Your task to perform on an android device: Clear the cart on bestbuy. Search for logitech g pro on bestbuy, select the first entry, and add it to the cart. Image 0: 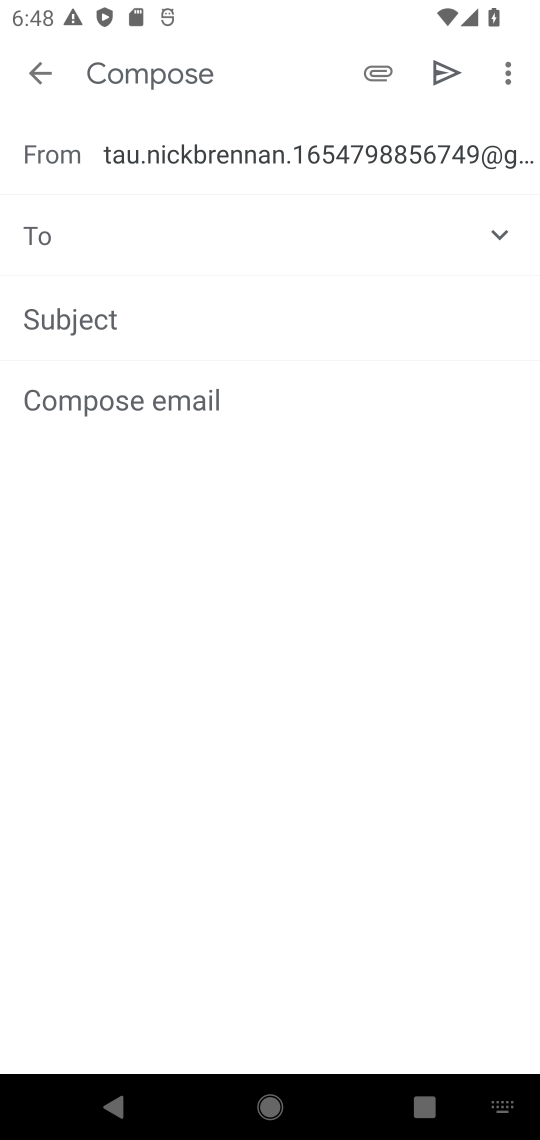
Step 0: press home button
Your task to perform on an android device: Clear the cart on bestbuy. Search for logitech g pro on bestbuy, select the first entry, and add it to the cart. Image 1: 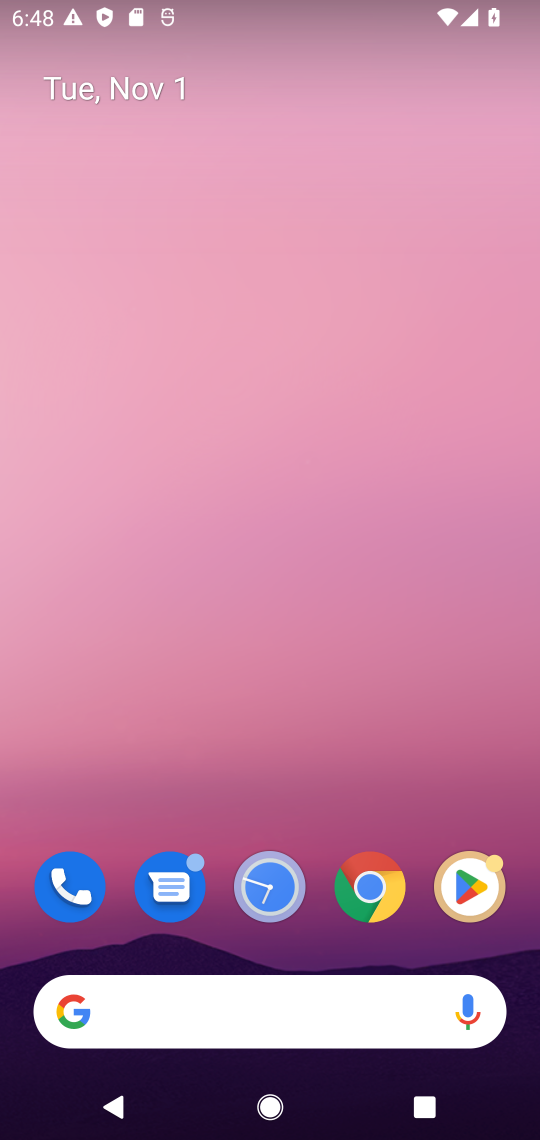
Step 1: drag from (248, 675) to (297, 205)
Your task to perform on an android device: Clear the cart on bestbuy. Search for logitech g pro on bestbuy, select the first entry, and add it to the cart. Image 2: 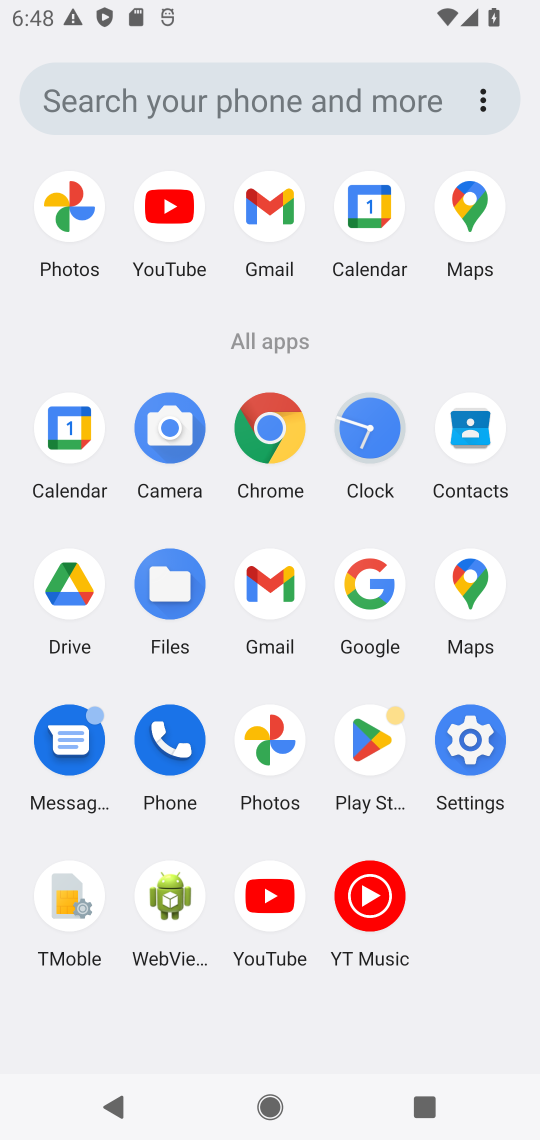
Step 2: click (379, 578)
Your task to perform on an android device: Clear the cart on bestbuy. Search for logitech g pro on bestbuy, select the first entry, and add it to the cart. Image 3: 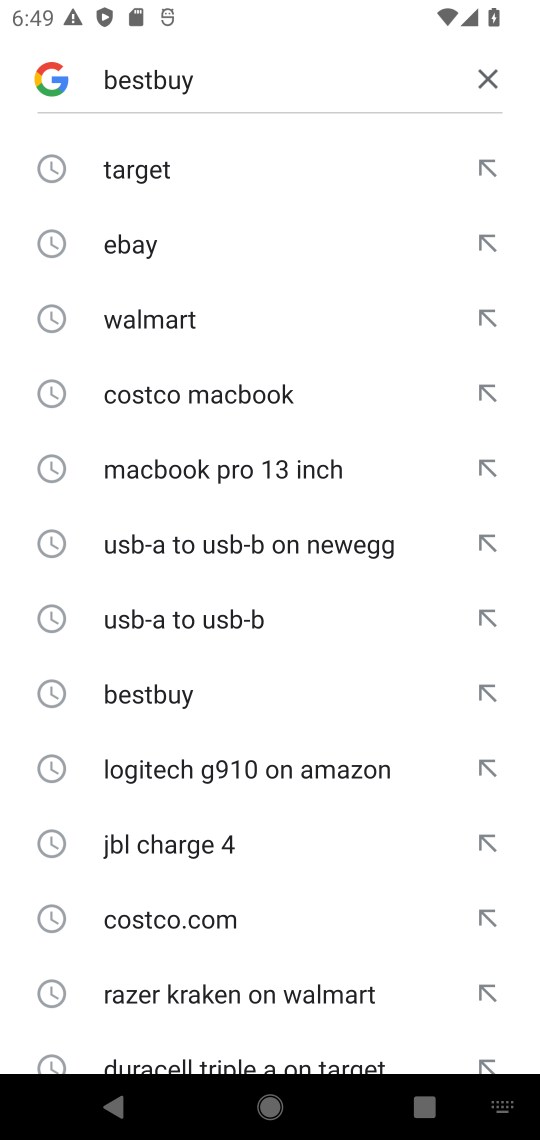
Step 3: click (475, 78)
Your task to perform on an android device: Clear the cart on bestbuy. Search for logitech g pro on bestbuy, select the first entry, and add it to the cart. Image 4: 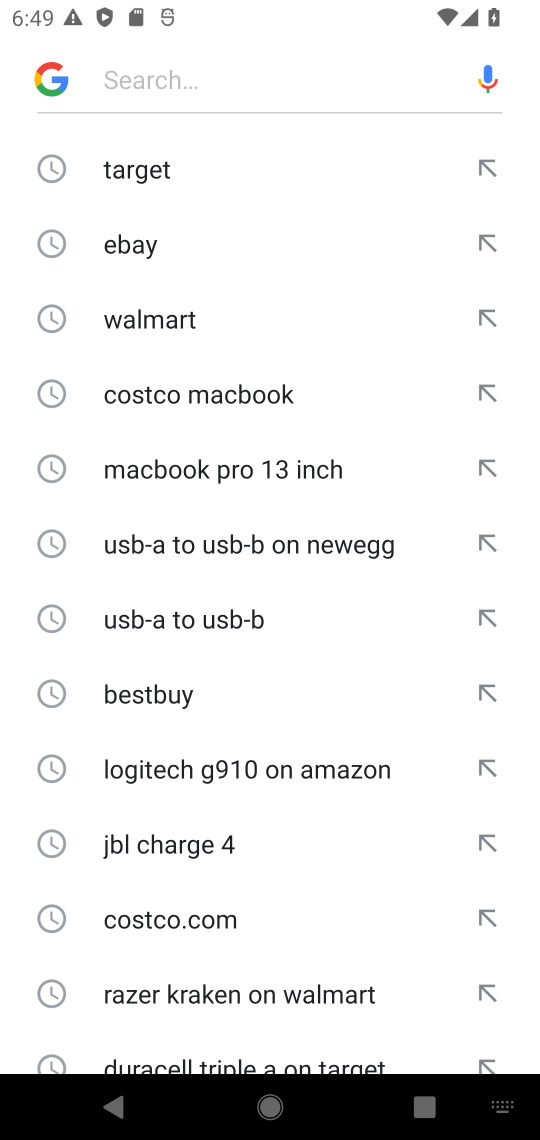
Step 4: click (212, 64)
Your task to perform on an android device: Clear the cart on bestbuy. Search for logitech g pro on bestbuy, select the first entry, and add it to the cart. Image 5: 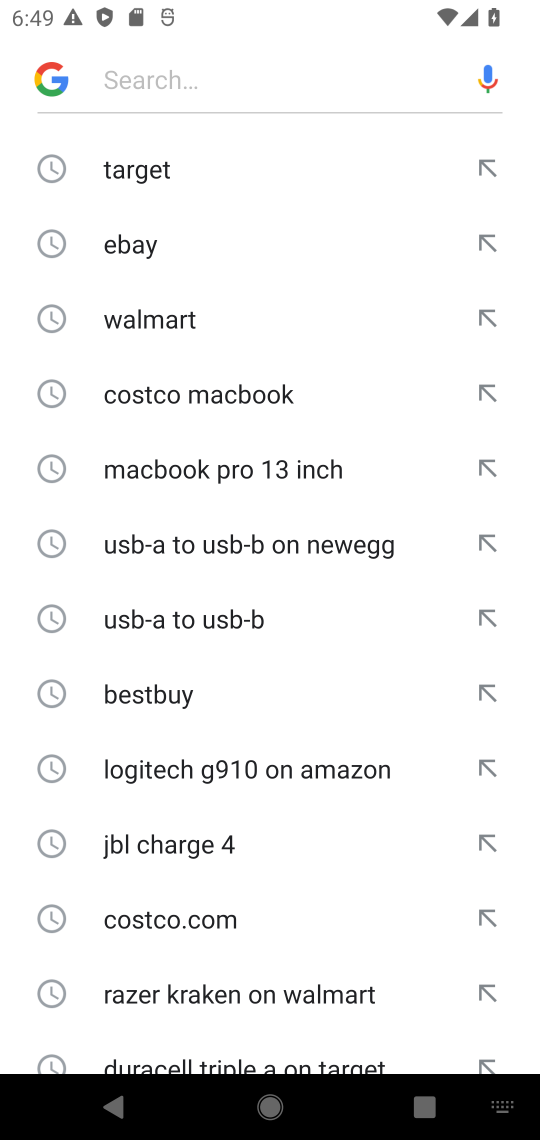
Step 5: type "bestbuy "
Your task to perform on an android device: Clear the cart on bestbuy. Search for logitech g pro on bestbuy, select the first entry, and add it to the cart. Image 6: 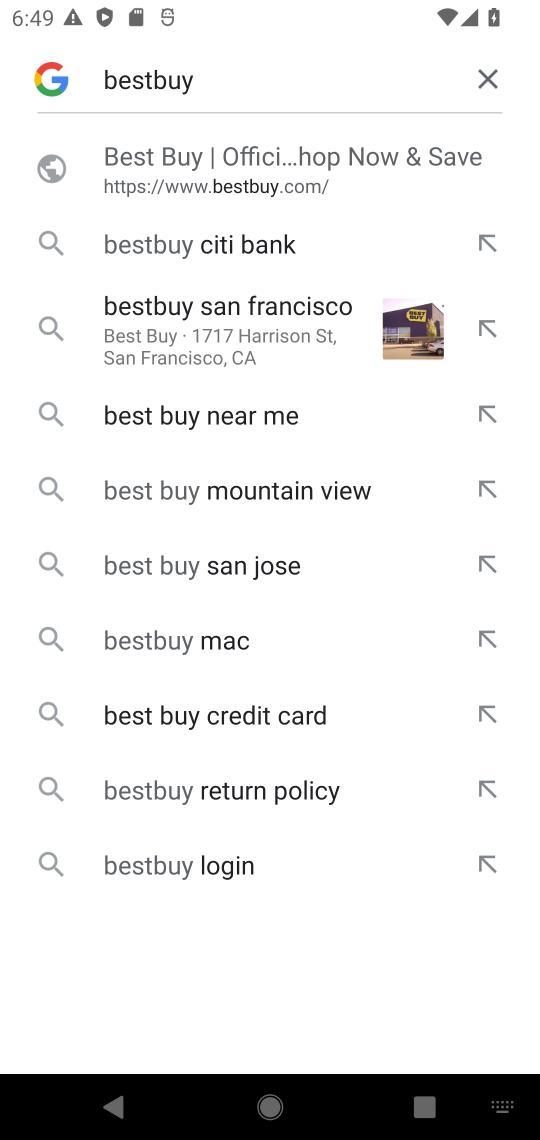
Step 6: click (154, 427)
Your task to perform on an android device: Clear the cart on bestbuy. Search for logitech g pro on bestbuy, select the first entry, and add it to the cart. Image 7: 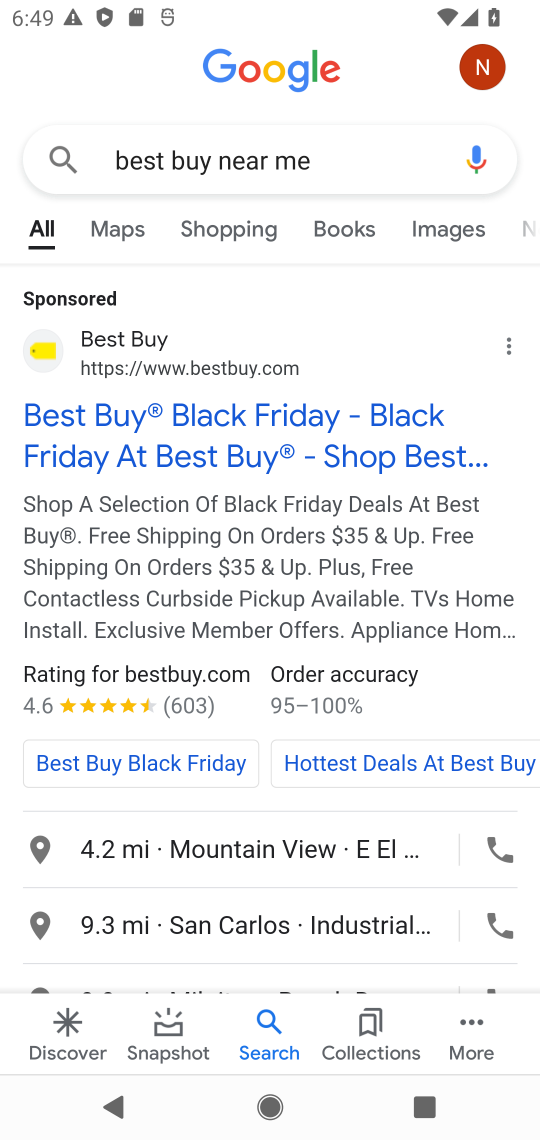
Step 7: click (130, 417)
Your task to perform on an android device: Clear the cart on bestbuy. Search for logitech g pro on bestbuy, select the first entry, and add it to the cart. Image 8: 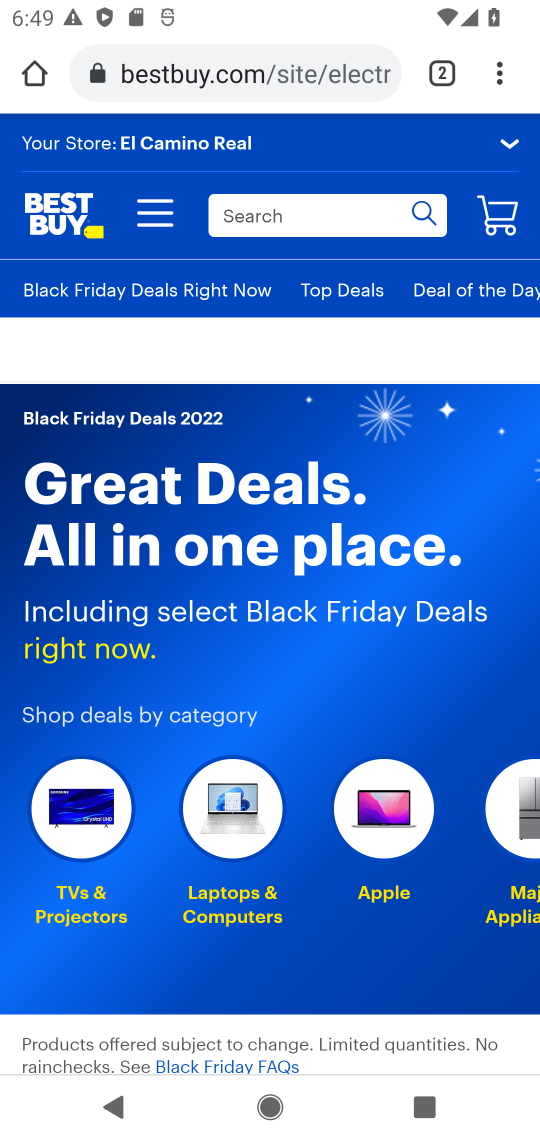
Step 8: click (290, 211)
Your task to perform on an android device: Clear the cart on bestbuy. Search for logitech g pro on bestbuy, select the first entry, and add it to the cart. Image 9: 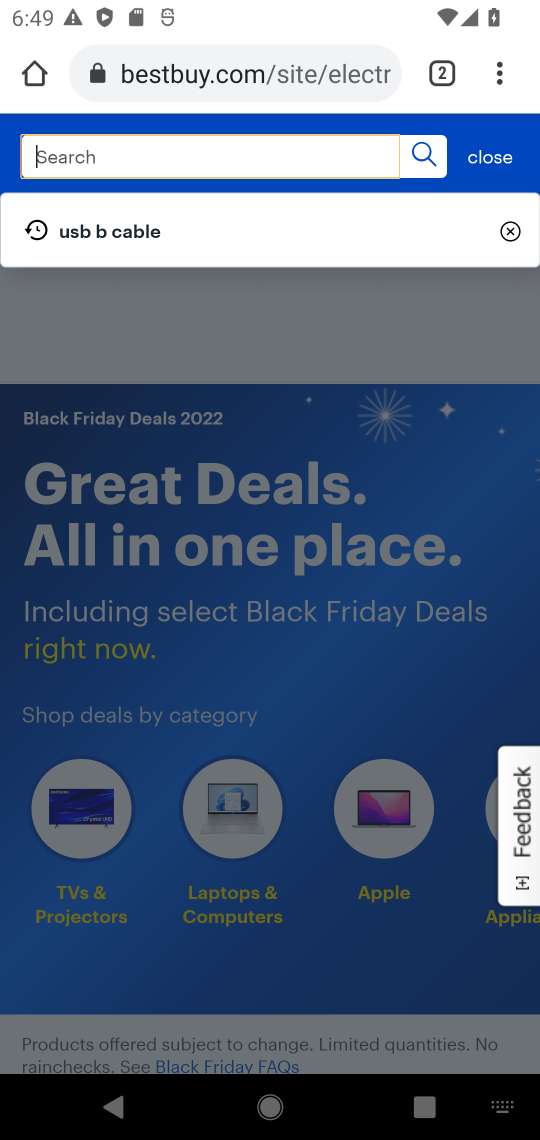
Step 9: type "logitech "
Your task to perform on an android device: Clear the cart on bestbuy. Search for logitech g pro on bestbuy, select the first entry, and add it to the cart. Image 10: 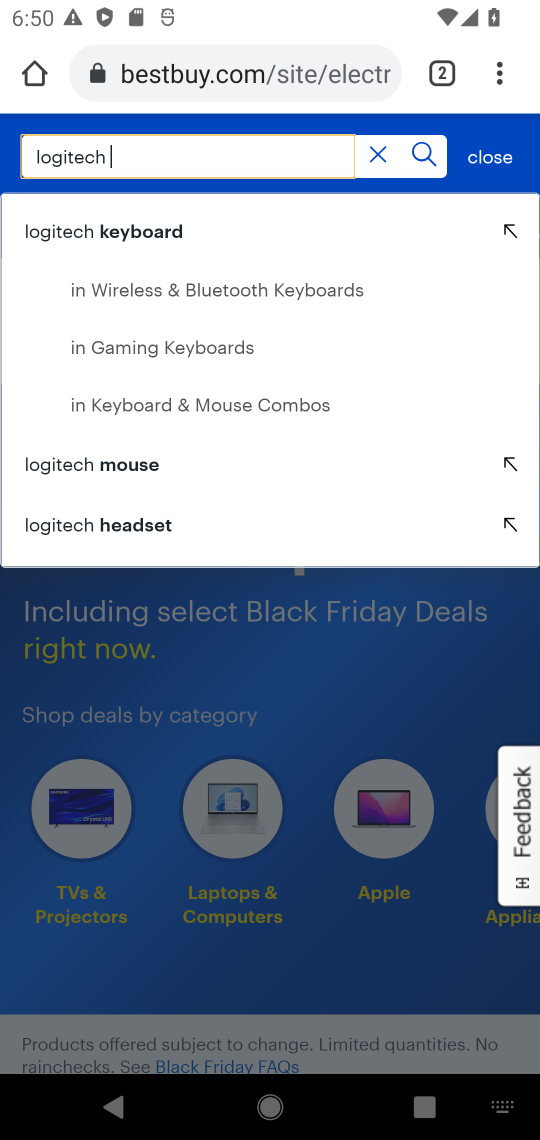
Step 10: click (134, 235)
Your task to perform on an android device: Clear the cart on bestbuy. Search for logitech g pro on bestbuy, select the first entry, and add it to the cart. Image 11: 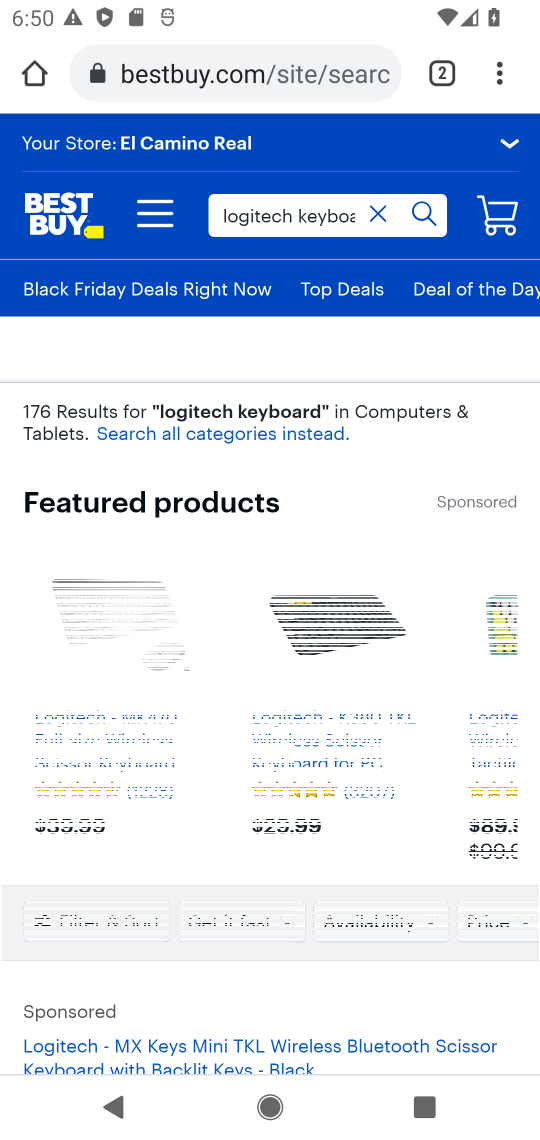
Step 11: click (375, 209)
Your task to perform on an android device: Clear the cart on bestbuy. Search for logitech g pro on bestbuy, select the first entry, and add it to the cart. Image 12: 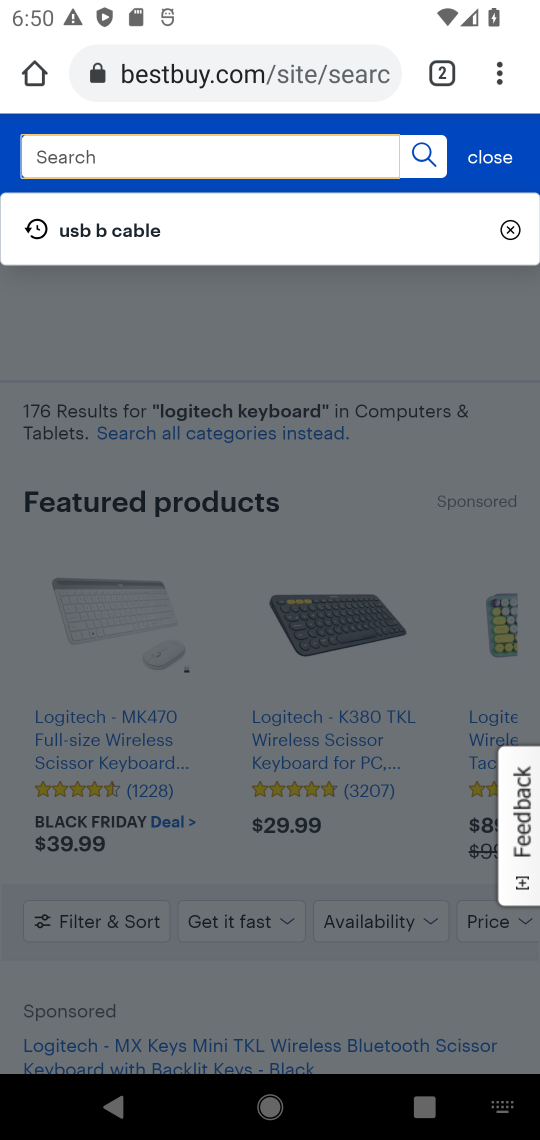
Step 12: click (134, 155)
Your task to perform on an android device: Clear the cart on bestbuy. Search for logitech g pro on bestbuy, select the first entry, and add it to the cart. Image 13: 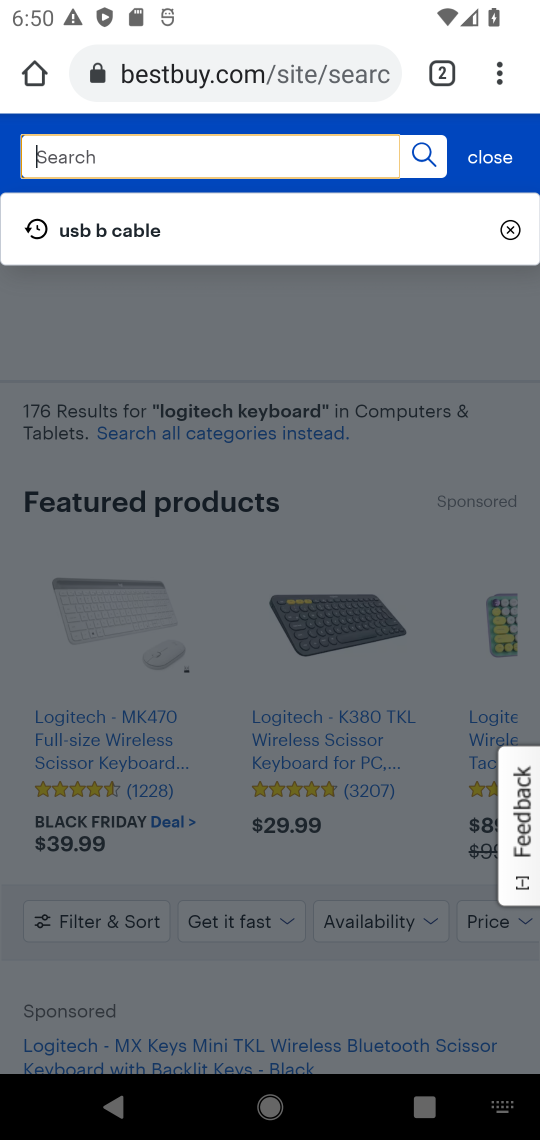
Step 13: type "logitech g pro "
Your task to perform on an android device: Clear the cart on bestbuy. Search for logitech g pro on bestbuy, select the first entry, and add it to the cart. Image 14: 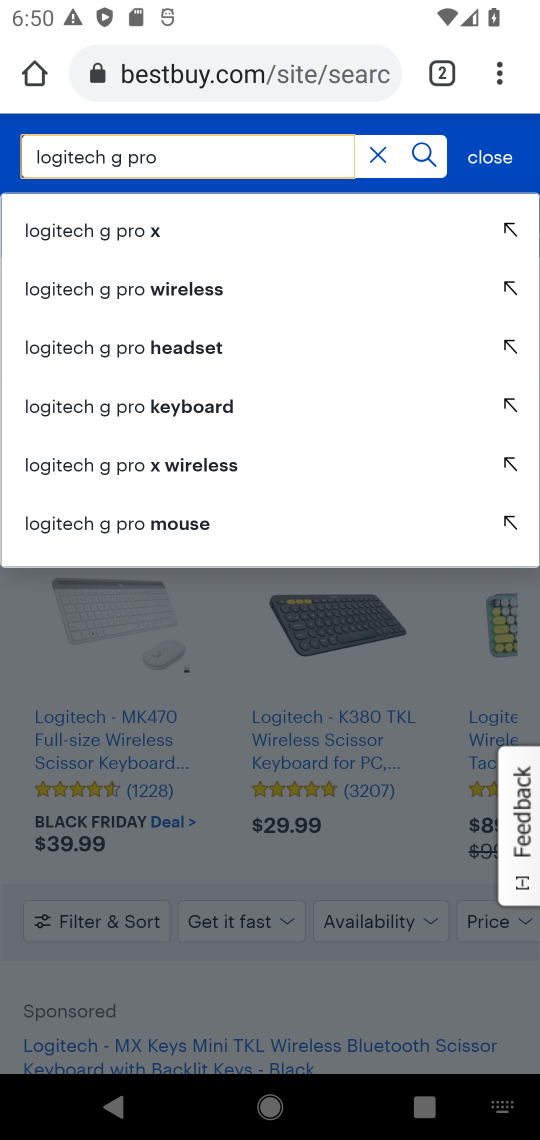
Step 14: click (85, 227)
Your task to perform on an android device: Clear the cart on bestbuy. Search for logitech g pro on bestbuy, select the first entry, and add it to the cart. Image 15: 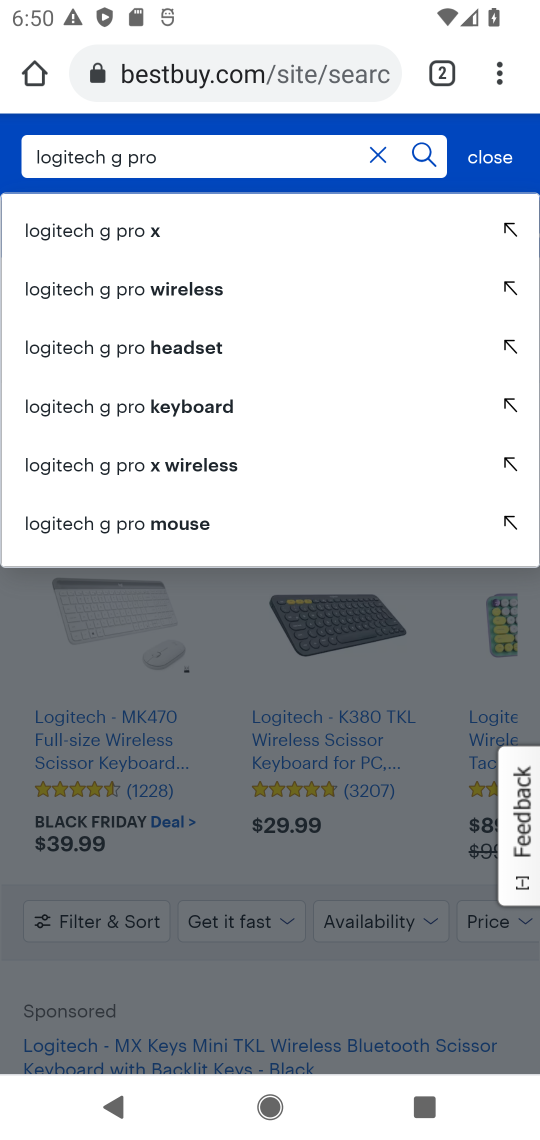
Step 15: click (102, 227)
Your task to perform on an android device: Clear the cart on bestbuy. Search for logitech g pro on bestbuy, select the first entry, and add it to the cart. Image 16: 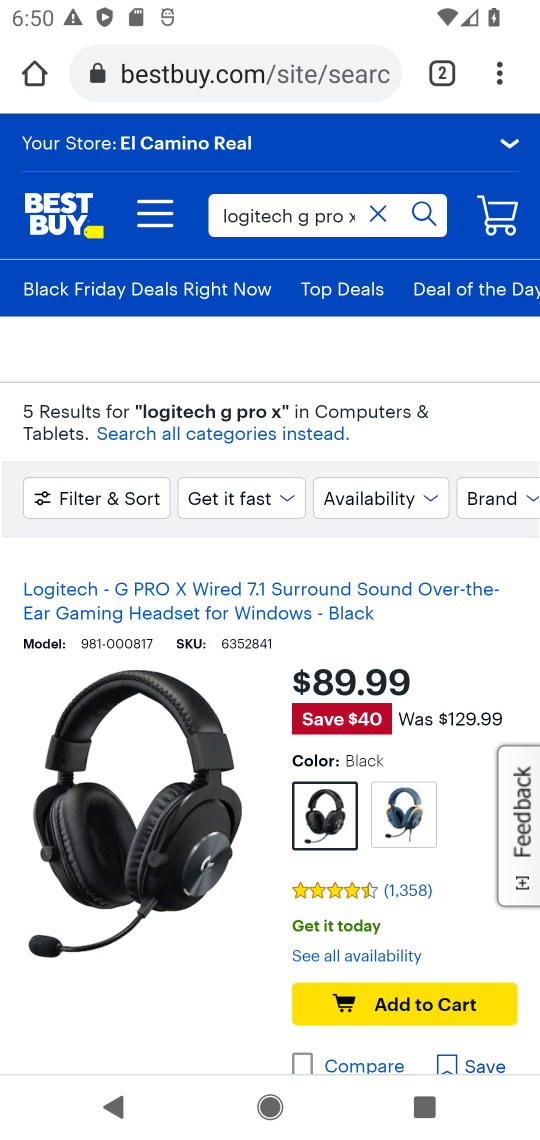
Step 16: click (412, 994)
Your task to perform on an android device: Clear the cart on bestbuy. Search for logitech g pro on bestbuy, select the first entry, and add it to the cart. Image 17: 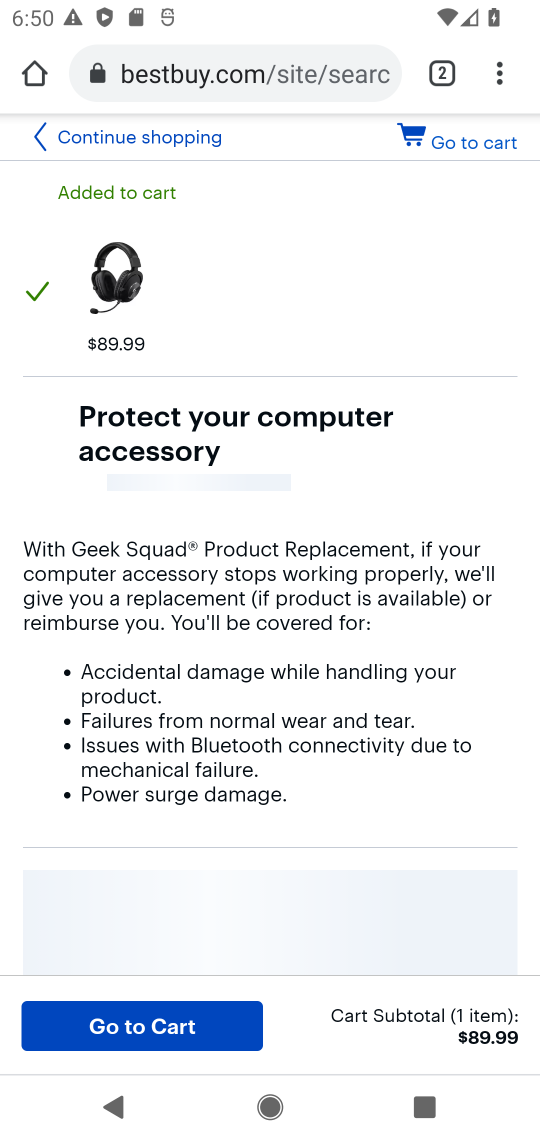
Step 17: task complete